Your task to perform on an android device: read, delete, or share a saved page in the chrome app Image 0: 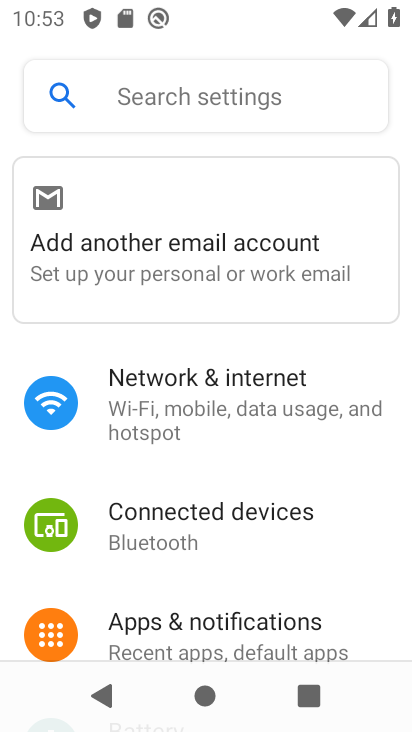
Step 0: press home button
Your task to perform on an android device: read, delete, or share a saved page in the chrome app Image 1: 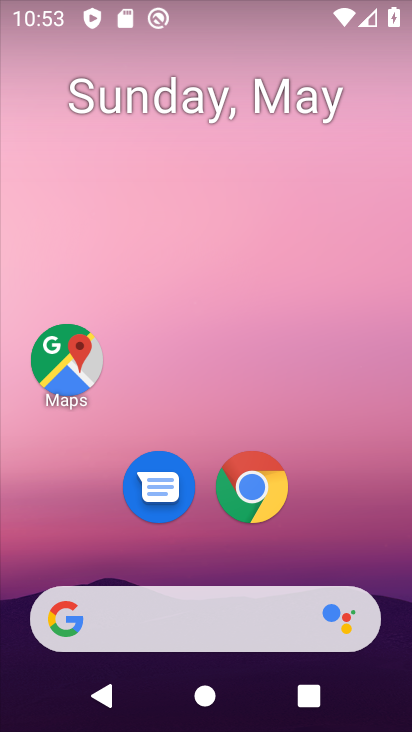
Step 1: click (238, 478)
Your task to perform on an android device: read, delete, or share a saved page in the chrome app Image 2: 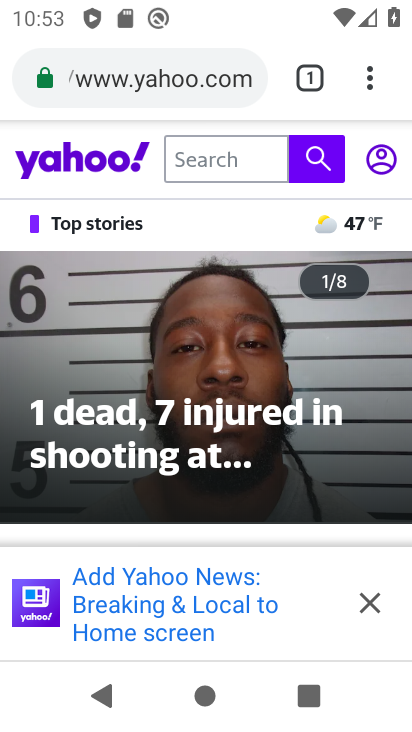
Step 2: click (359, 64)
Your task to perform on an android device: read, delete, or share a saved page in the chrome app Image 3: 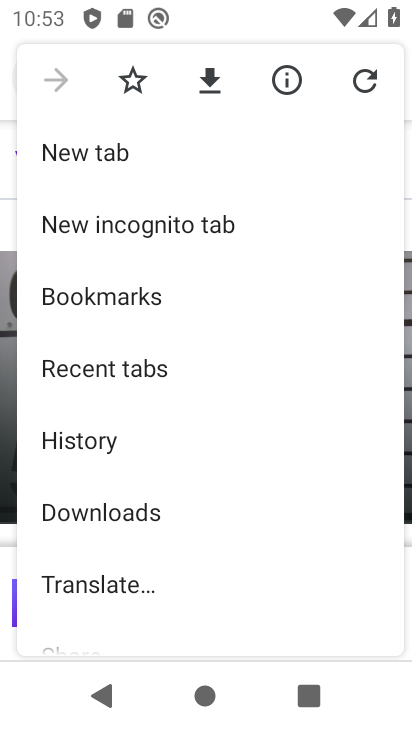
Step 3: click (114, 519)
Your task to perform on an android device: read, delete, or share a saved page in the chrome app Image 4: 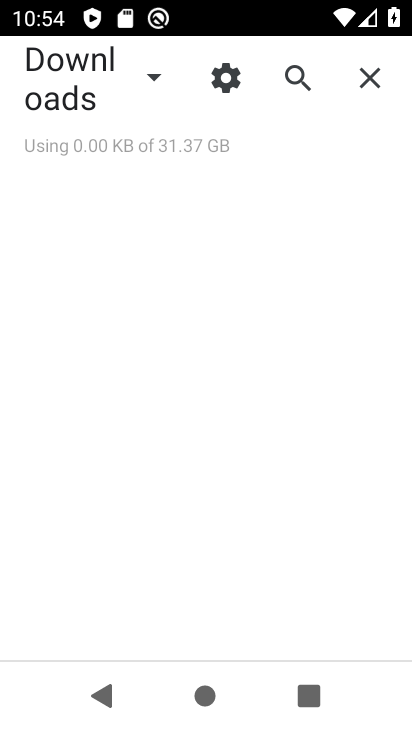
Step 4: click (147, 75)
Your task to perform on an android device: read, delete, or share a saved page in the chrome app Image 5: 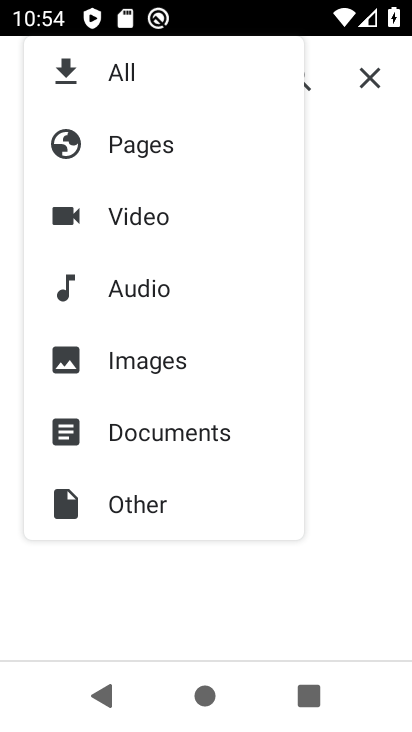
Step 5: click (132, 155)
Your task to perform on an android device: read, delete, or share a saved page in the chrome app Image 6: 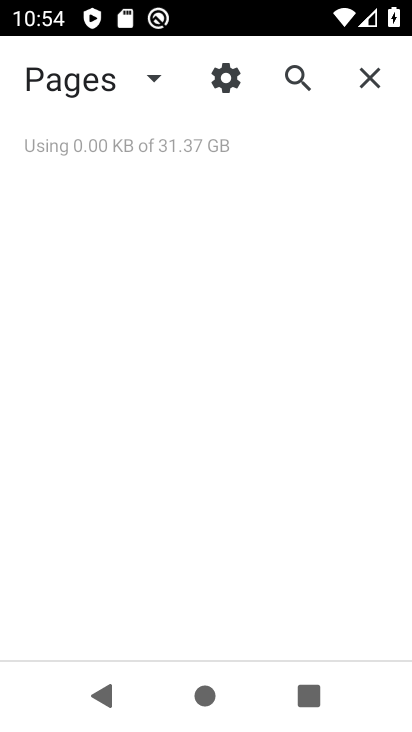
Step 6: task complete